Your task to perform on an android device: What's the weather today? Image 0: 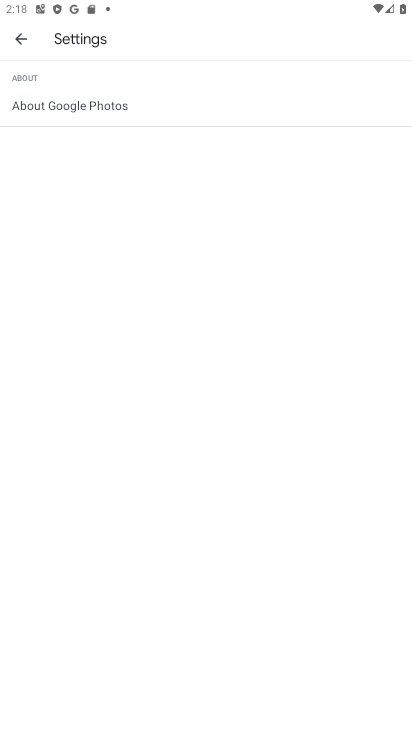
Step 0: press home button
Your task to perform on an android device: What's the weather today? Image 1: 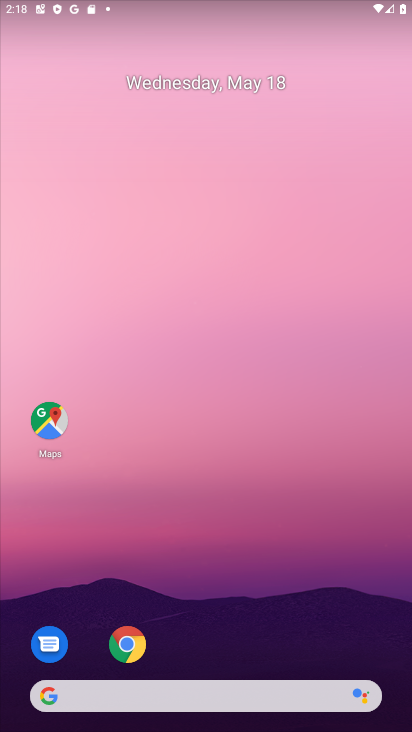
Step 1: drag from (230, 617) to (176, 88)
Your task to perform on an android device: What's the weather today? Image 2: 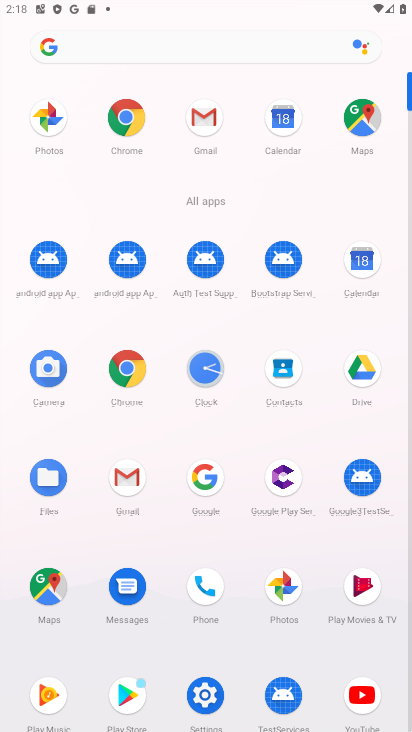
Step 2: click (204, 476)
Your task to perform on an android device: What's the weather today? Image 3: 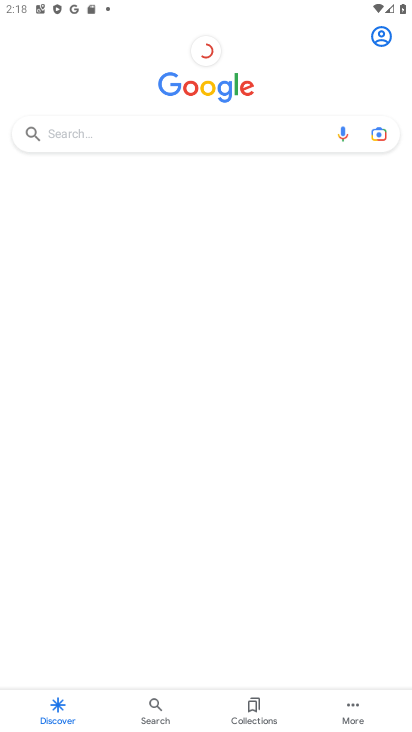
Step 3: click (148, 139)
Your task to perform on an android device: What's the weather today? Image 4: 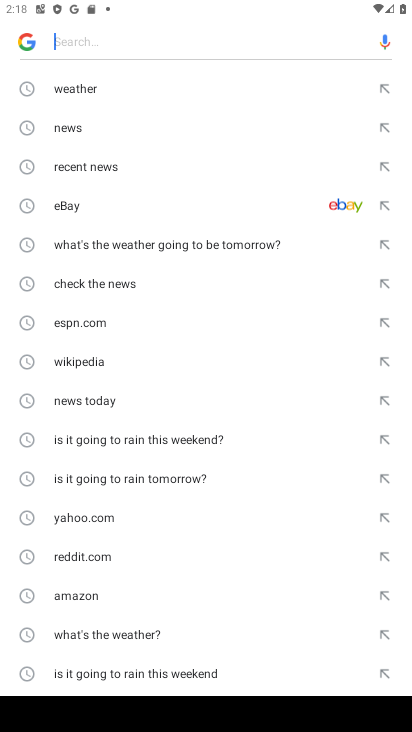
Step 4: click (86, 98)
Your task to perform on an android device: What's the weather today? Image 5: 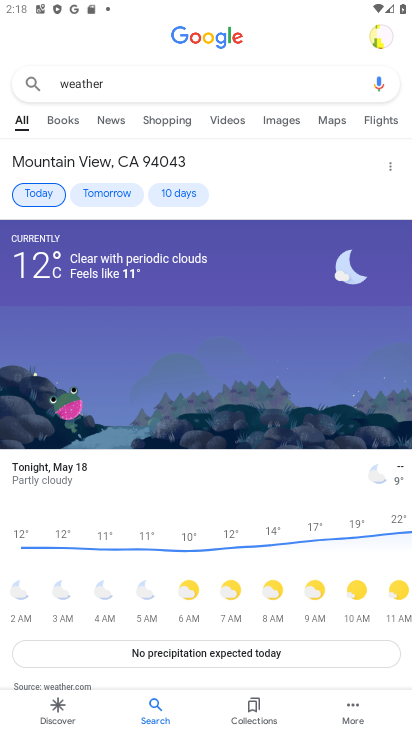
Step 5: task complete